Your task to perform on an android device: turn off location Image 0: 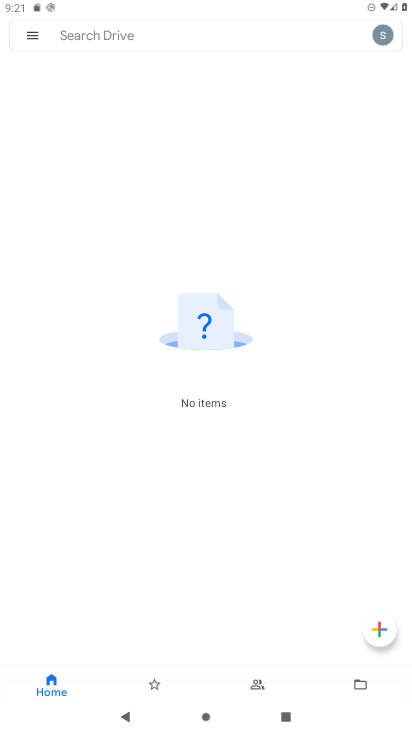
Step 0: press home button
Your task to perform on an android device: turn off location Image 1: 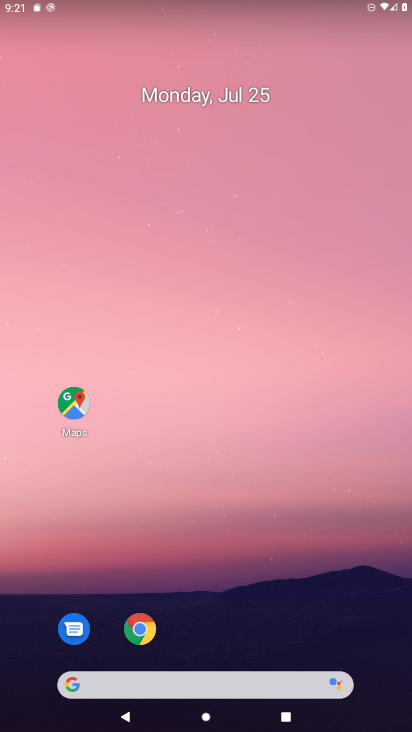
Step 1: drag from (228, 657) to (229, 28)
Your task to perform on an android device: turn off location Image 2: 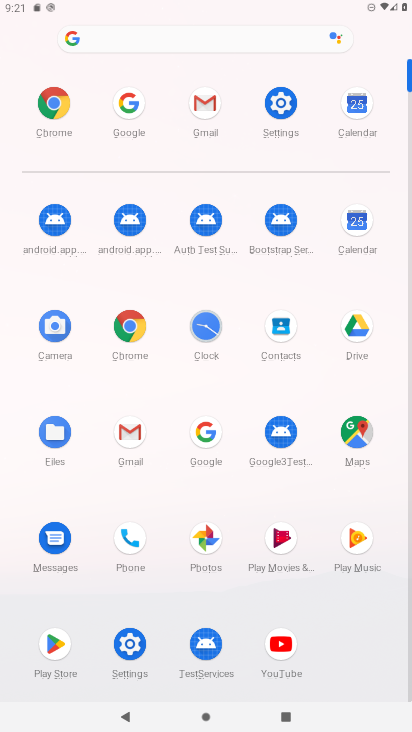
Step 2: click (272, 108)
Your task to perform on an android device: turn off location Image 3: 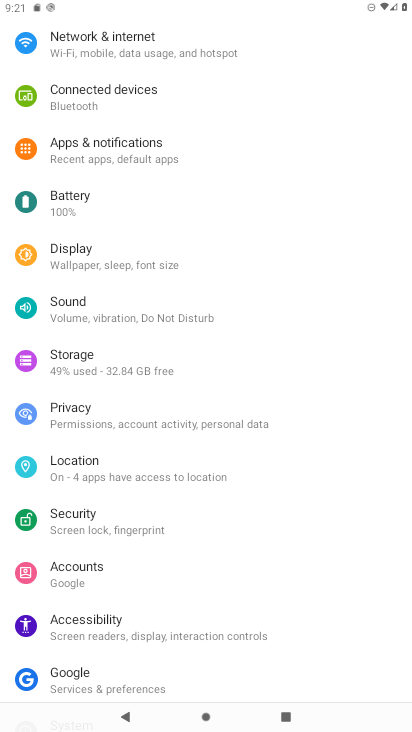
Step 3: click (87, 475)
Your task to perform on an android device: turn off location Image 4: 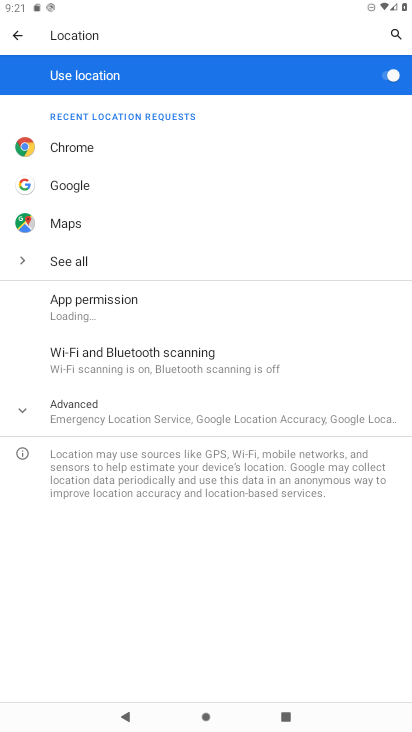
Step 4: click (382, 78)
Your task to perform on an android device: turn off location Image 5: 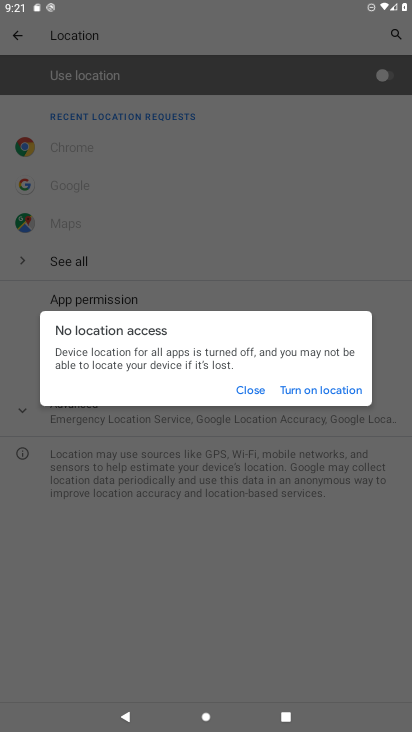
Step 5: task complete